Your task to perform on an android device: visit the assistant section in the google photos Image 0: 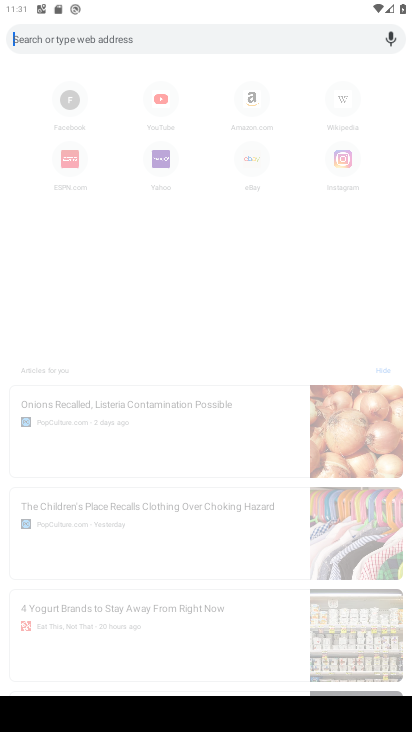
Step 0: press home button
Your task to perform on an android device: visit the assistant section in the google photos Image 1: 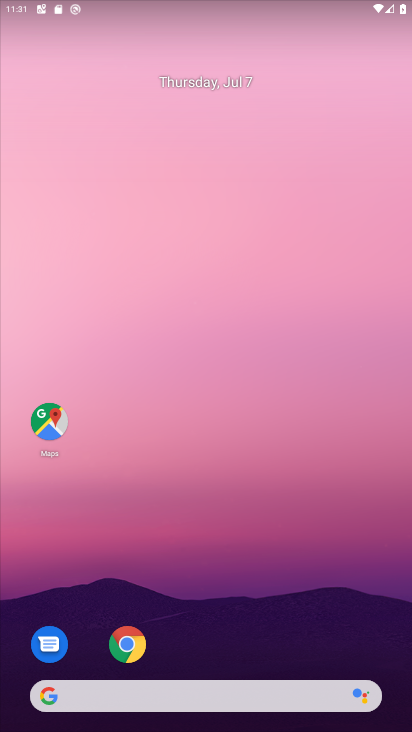
Step 1: drag from (7, 724) to (224, 231)
Your task to perform on an android device: visit the assistant section in the google photos Image 2: 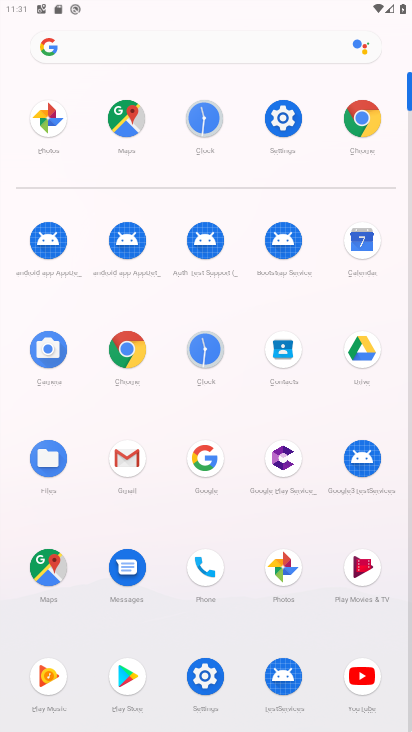
Step 2: click (38, 127)
Your task to perform on an android device: visit the assistant section in the google photos Image 3: 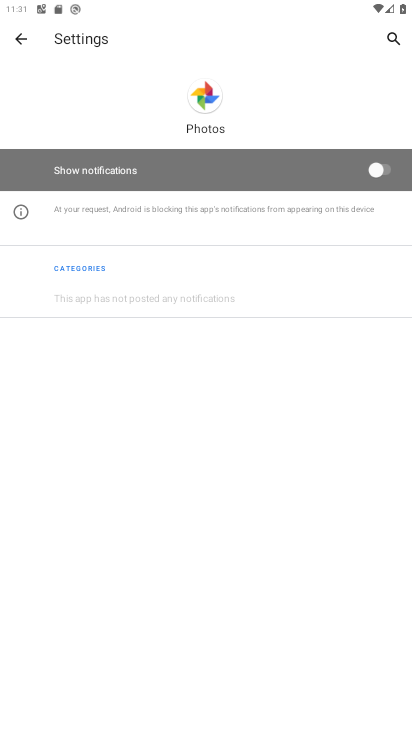
Step 3: click (27, 32)
Your task to perform on an android device: visit the assistant section in the google photos Image 4: 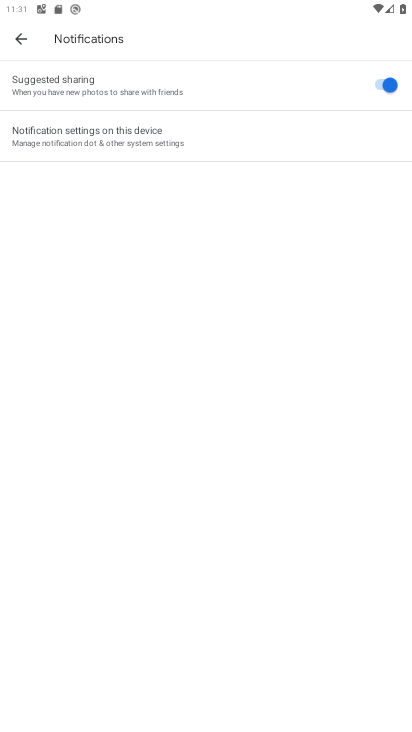
Step 4: click (22, 39)
Your task to perform on an android device: visit the assistant section in the google photos Image 5: 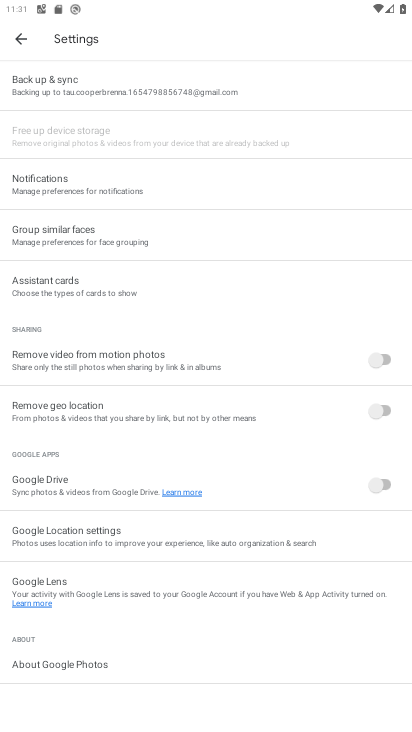
Step 5: click (19, 43)
Your task to perform on an android device: visit the assistant section in the google photos Image 6: 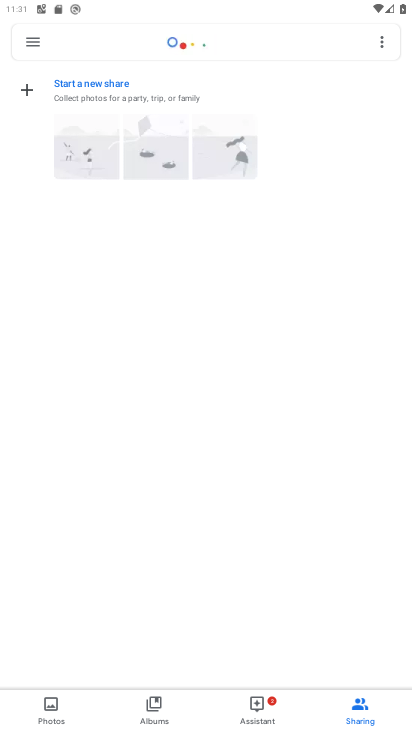
Step 6: click (256, 707)
Your task to perform on an android device: visit the assistant section in the google photos Image 7: 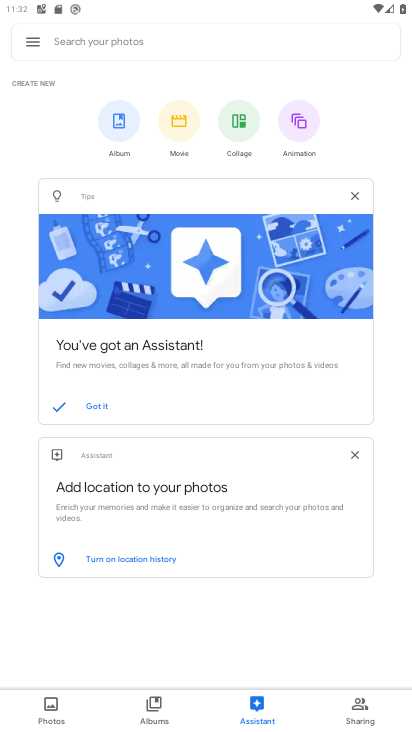
Step 7: task complete